Your task to perform on an android device: turn on notifications settings in the gmail app Image 0: 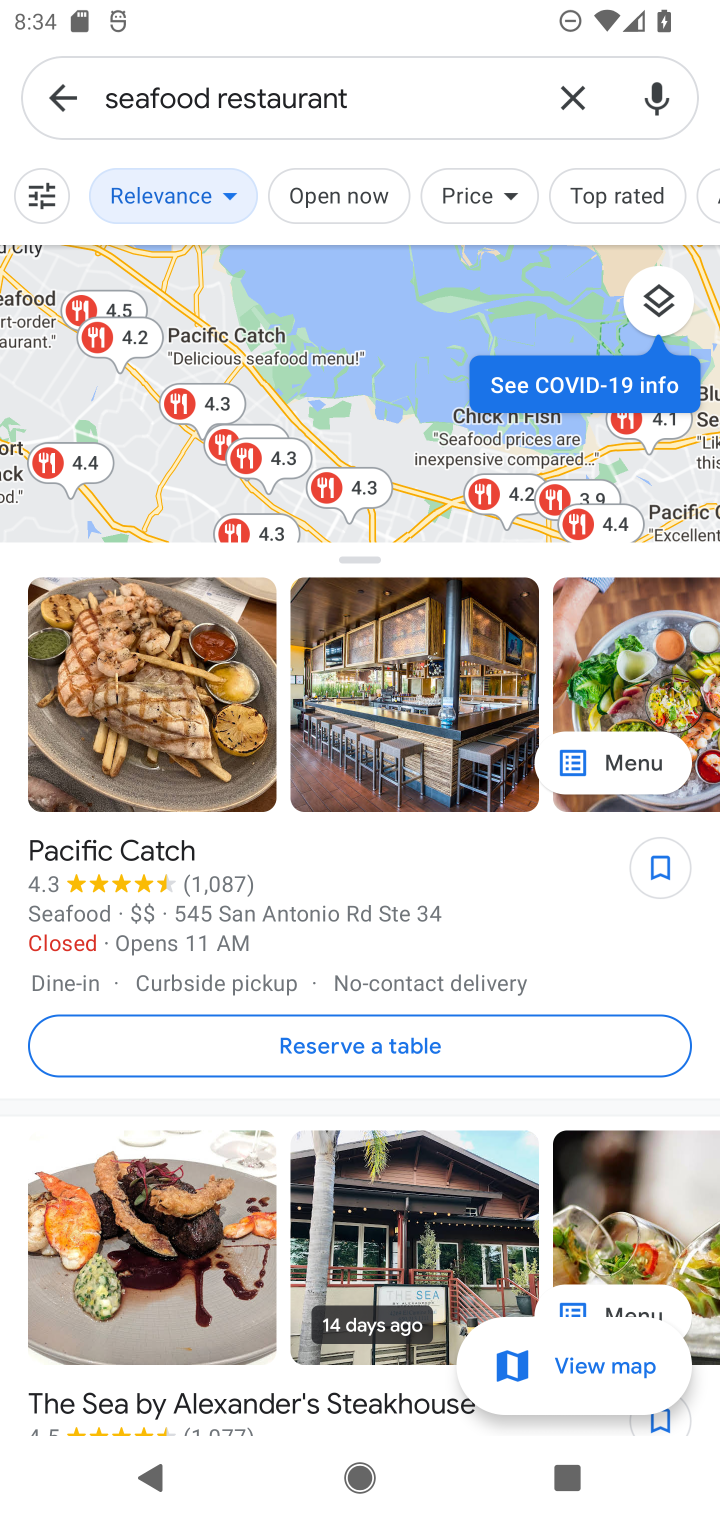
Step 0: task complete